Your task to perform on an android device: toggle data saver in the chrome app Image 0: 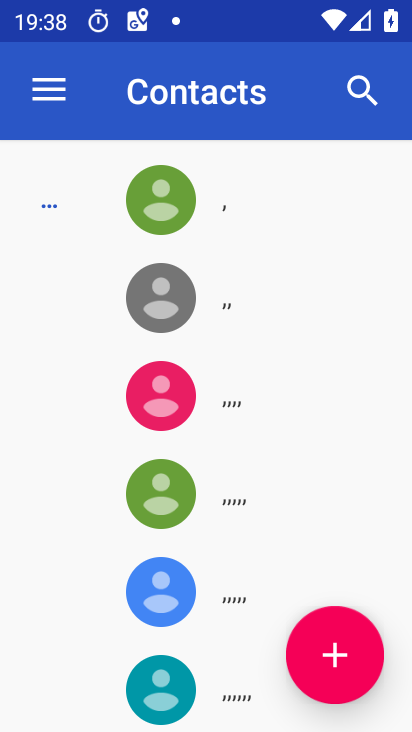
Step 0: press home button
Your task to perform on an android device: toggle data saver in the chrome app Image 1: 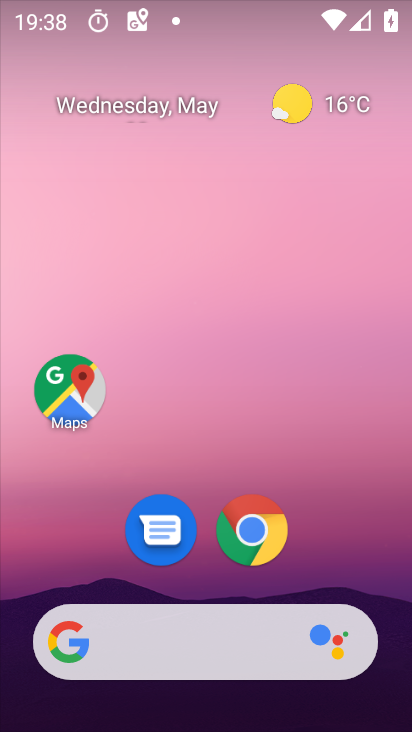
Step 1: click (255, 534)
Your task to perform on an android device: toggle data saver in the chrome app Image 2: 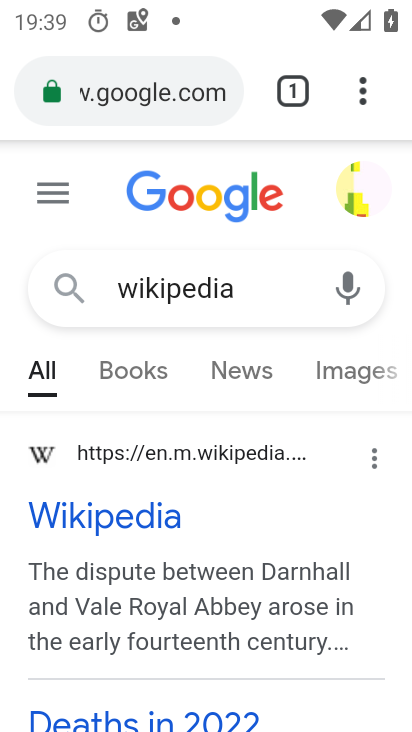
Step 2: press home button
Your task to perform on an android device: toggle data saver in the chrome app Image 3: 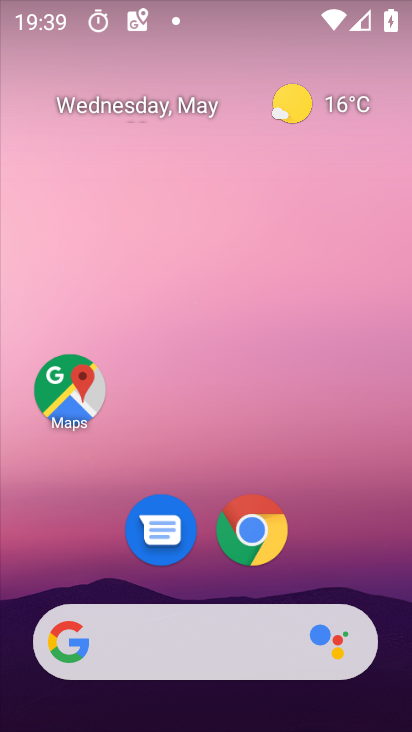
Step 3: click (260, 538)
Your task to perform on an android device: toggle data saver in the chrome app Image 4: 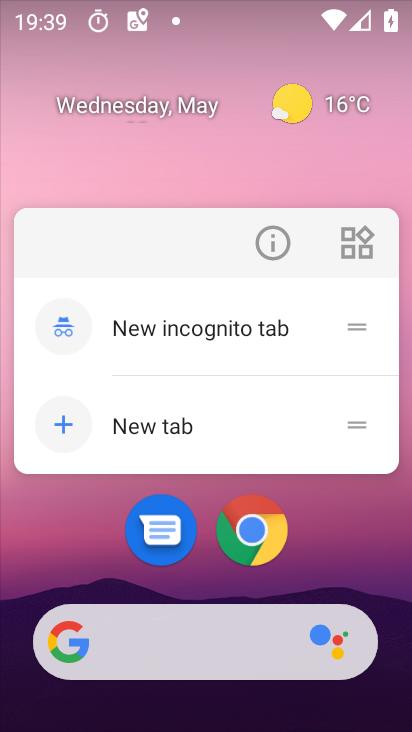
Step 4: click (257, 244)
Your task to perform on an android device: toggle data saver in the chrome app Image 5: 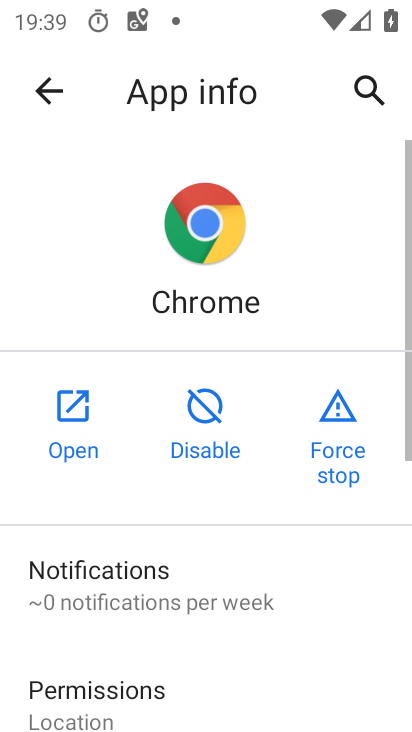
Step 5: click (83, 426)
Your task to perform on an android device: toggle data saver in the chrome app Image 6: 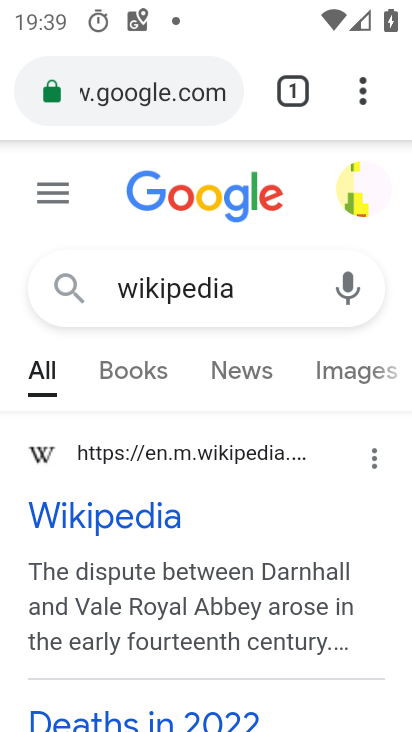
Step 6: click (365, 93)
Your task to perform on an android device: toggle data saver in the chrome app Image 7: 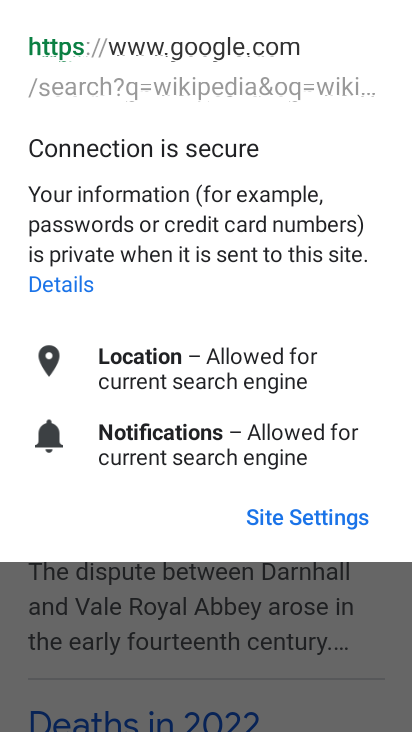
Step 7: click (274, 671)
Your task to perform on an android device: toggle data saver in the chrome app Image 8: 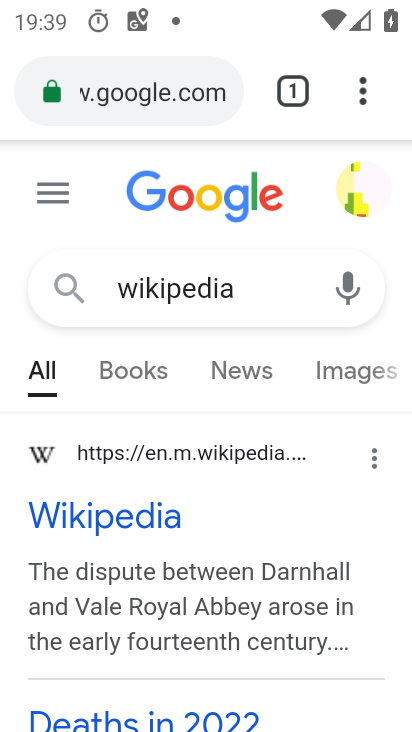
Step 8: click (362, 98)
Your task to perform on an android device: toggle data saver in the chrome app Image 9: 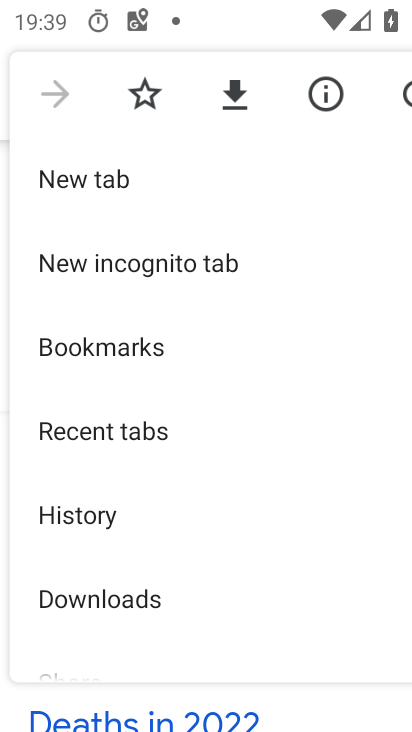
Step 9: drag from (160, 487) to (217, 201)
Your task to perform on an android device: toggle data saver in the chrome app Image 10: 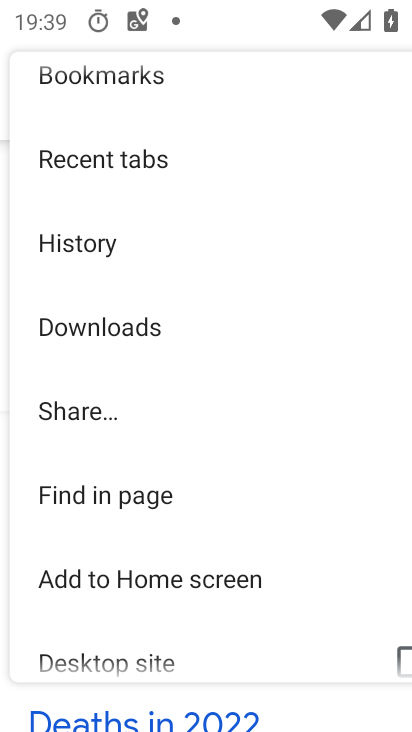
Step 10: drag from (94, 650) to (145, 323)
Your task to perform on an android device: toggle data saver in the chrome app Image 11: 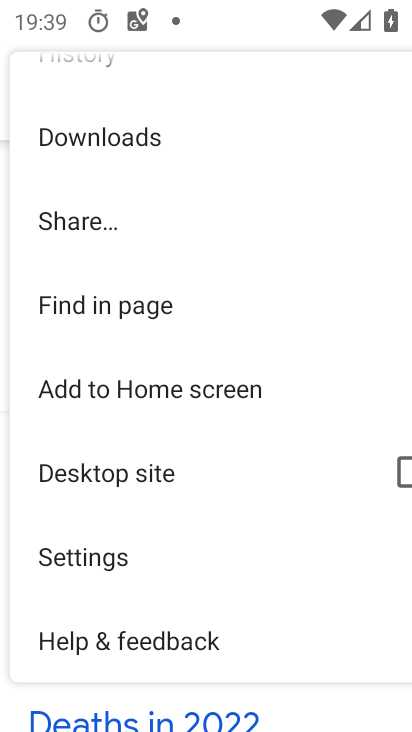
Step 11: click (119, 563)
Your task to perform on an android device: toggle data saver in the chrome app Image 12: 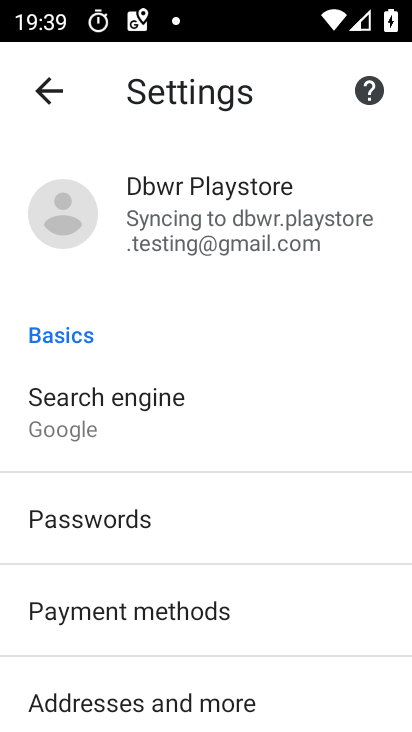
Step 12: drag from (138, 561) to (179, 298)
Your task to perform on an android device: toggle data saver in the chrome app Image 13: 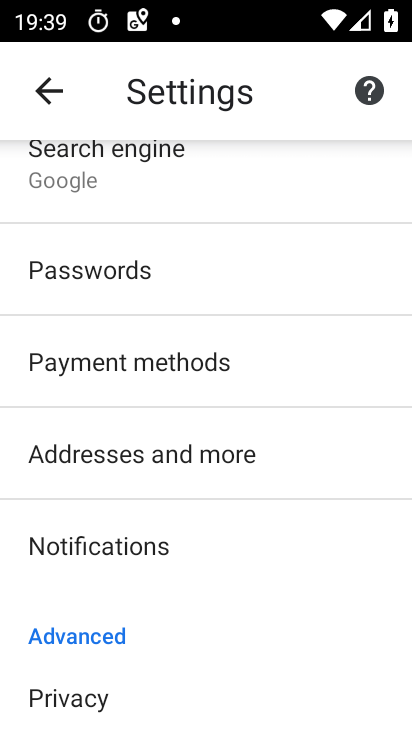
Step 13: drag from (120, 620) to (154, 303)
Your task to perform on an android device: toggle data saver in the chrome app Image 14: 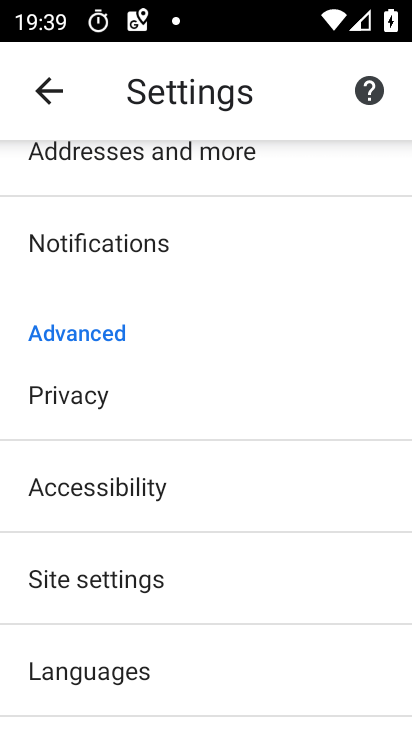
Step 14: drag from (104, 625) to (159, 375)
Your task to perform on an android device: toggle data saver in the chrome app Image 15: 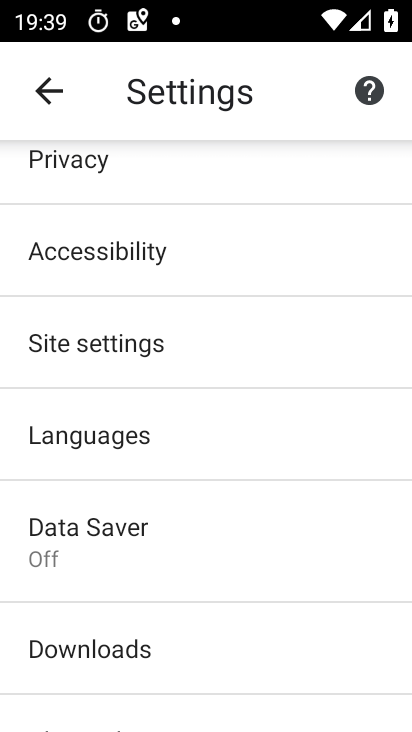
Step 15: click (91, 544)
Your task to perform on an android device: toggle data saver in the chrome app Image 16: 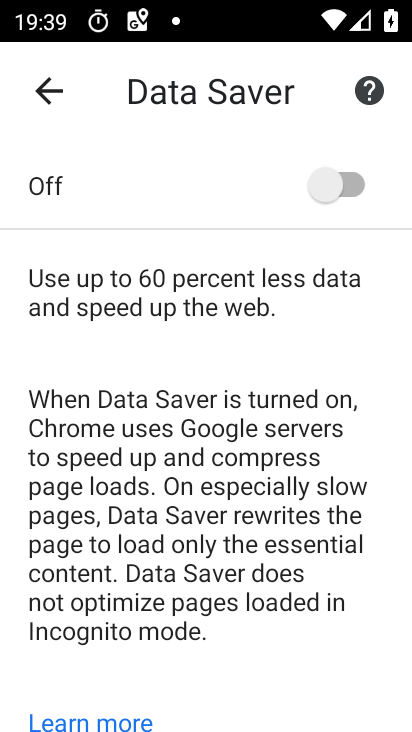
Step 16: click (345, 187)
Your task to perform on an android device: toggle data saver in the chrome app Image 17: 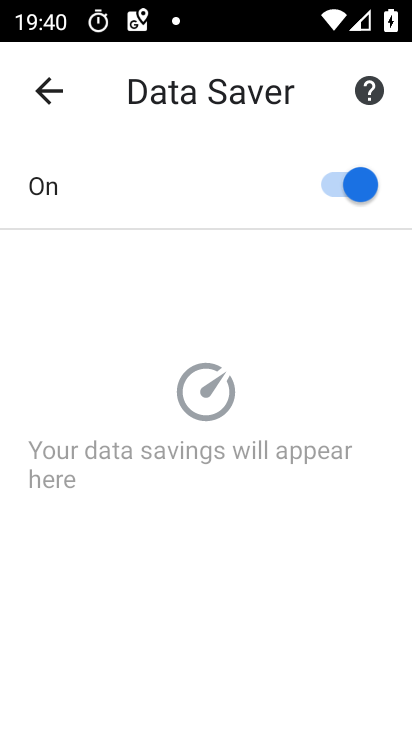
Step 17: task complete